Your task to perform on an android device: turn off priority inbox in the gmail app Image 0: 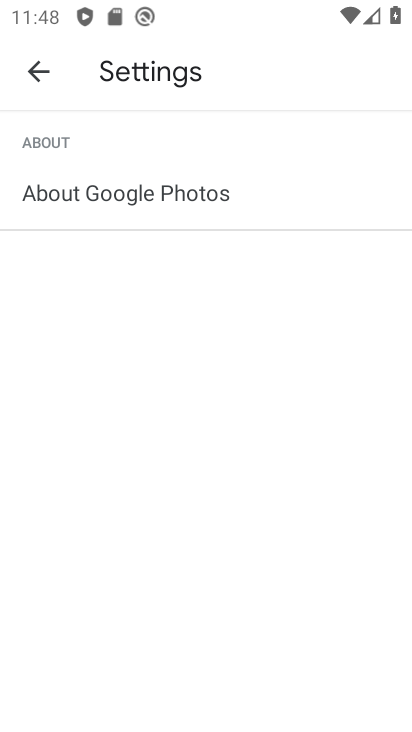
Step 0: press home button
Your task to perform on an android device: turn off priority inbox in the gmail app Image 1: 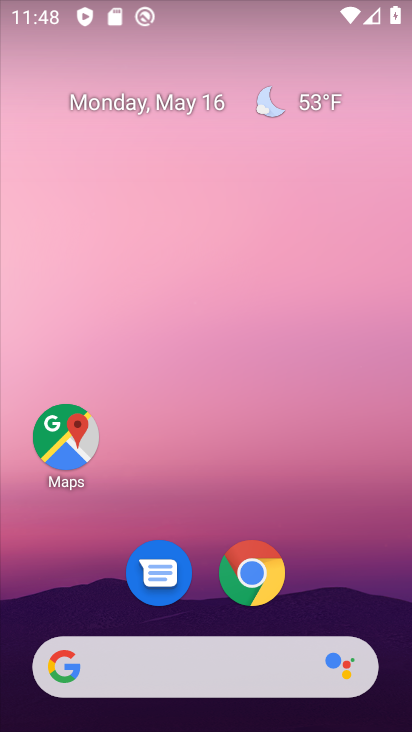
Step 1: drag from (176, 651) to (203, 299)
Your task to perform on an android device: turn off priority inbox in the gmail app Image 2: 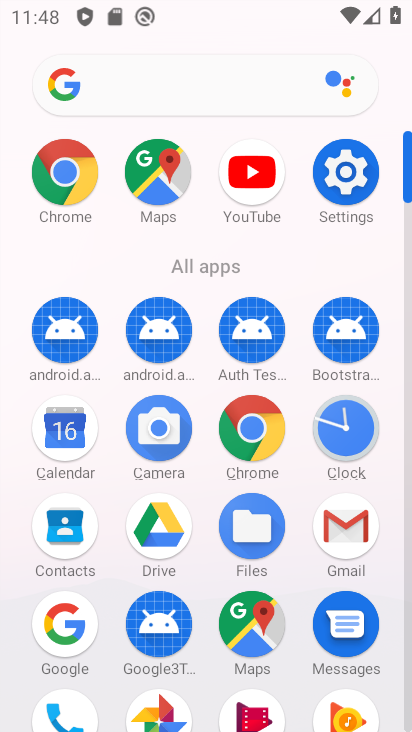
Step 2: click (334, 533)
Your task to perform on an android device: turn off priority inbox in the gmail app Image 3: 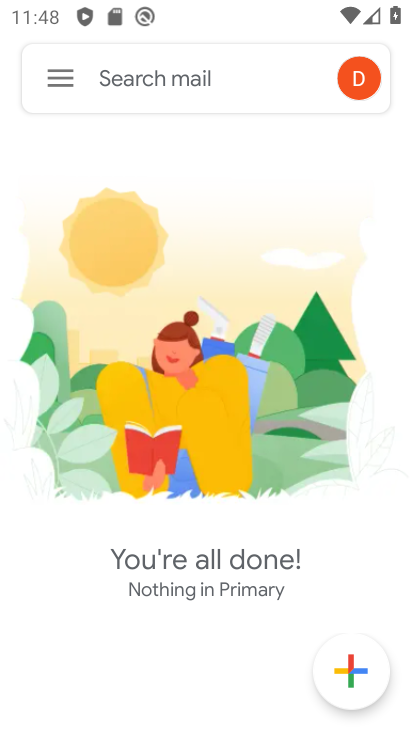
Step 3: click (70, 85)
Your task to perform on an android device: turn off priority inbox in the gmail app Image 4: 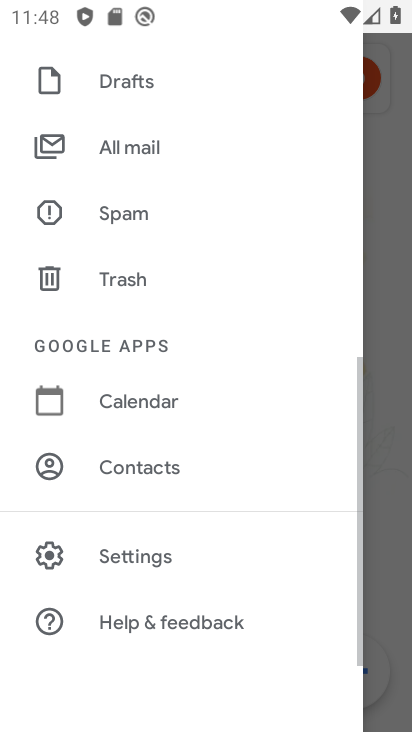
Step 4: click (93, 563)
Your task to perform on an android device: turn off priority inbox in the gmail app Image 5: 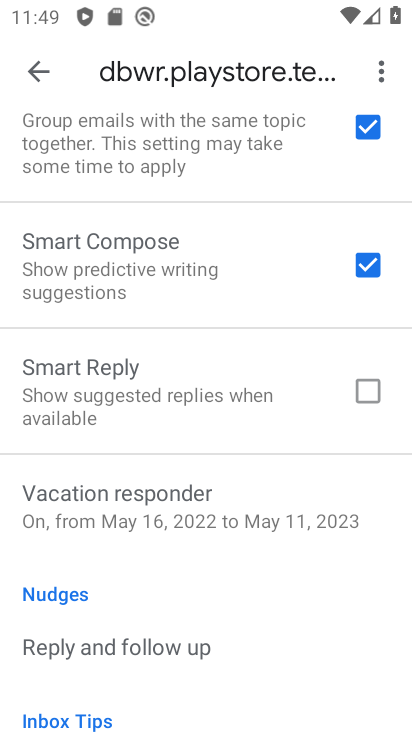
Step 5: drag from (289, 235) to (217, 674)
Your task to perform on an android device: turn off priority inbox in the gmail app Image 6: 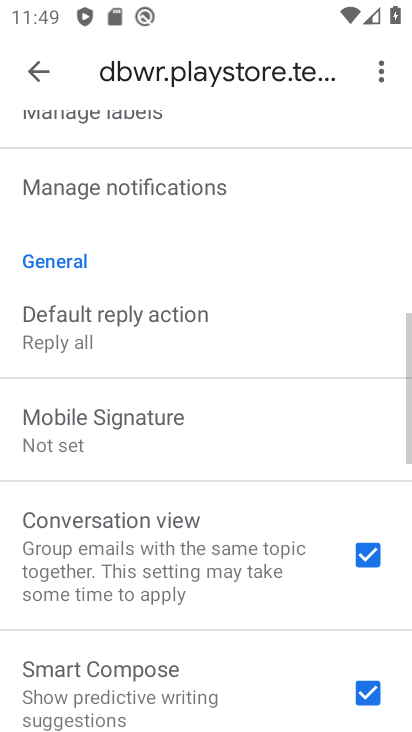
Step 6: drag from (240, 565) to (266, 717)
Your task to perform on an android device: turn off priority inbox in the gmail app Image 7: 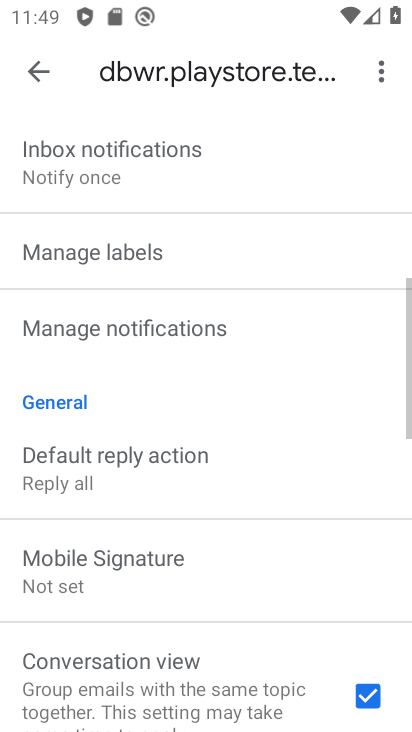
Step 7: drag from (214, 270) to (278, 654)
Your task to perform on an android device: turn off priority inbox in the gmail app Image 8: 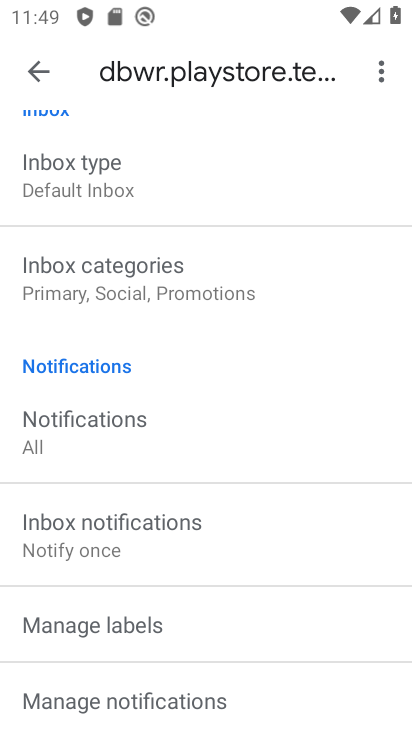
Step 8: click (139, 176)
Your task to perform on an android device: turn off priority inbox in the gmail app Image 9: 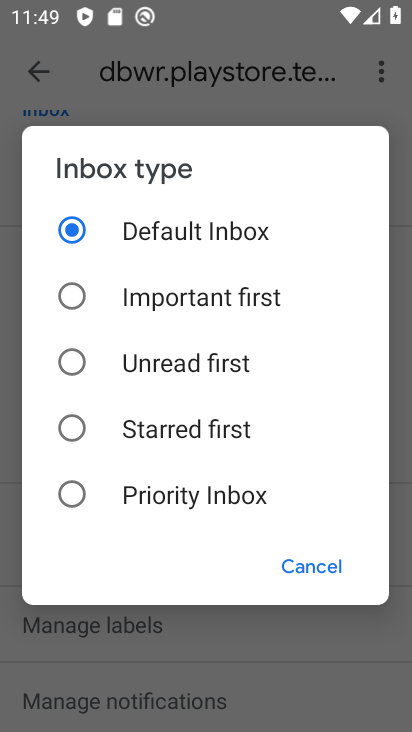
Step 9: click (185, 232)
Your task to perform on an android device: turn off priority inbox in the gmail app Image 10: 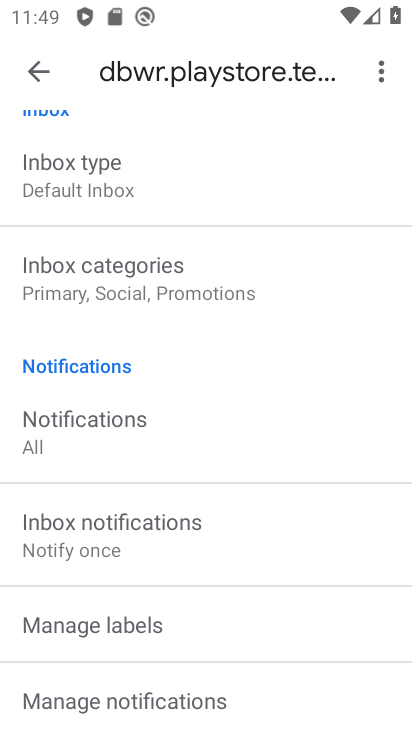
Step 10: task complete